Your task to perform on an android device: Open the stopwatch Image 0: 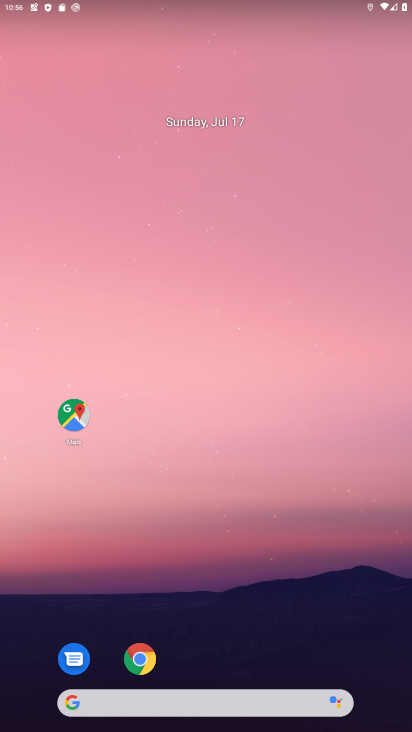
Step 0: drag from (289, 566) to (275, 45)
Your task to perform on an android device: Open the stopwatch Image 1: 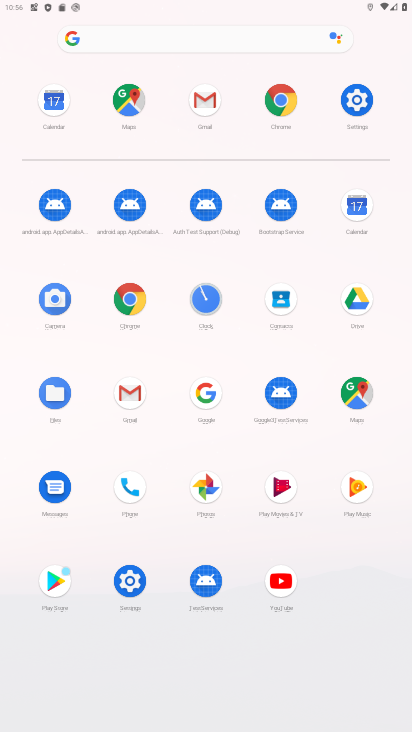
Step 1: click (207, 300)
Your task to perform on an android device: Open the stopwatch Image 2: 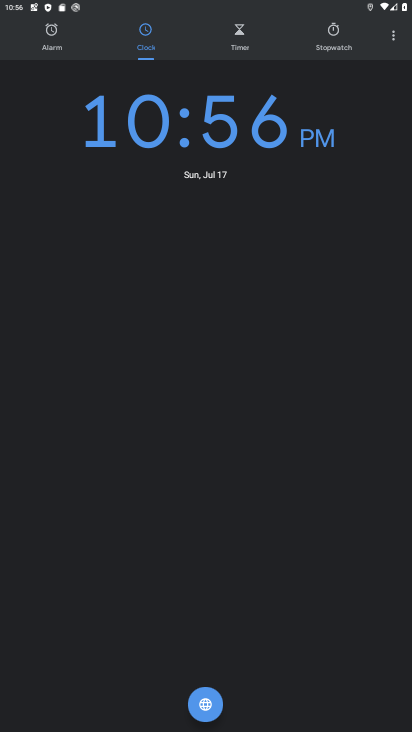
Step 2: click (347, 42)
Your task to perform on an android device: Open the stopwatch Image 3: 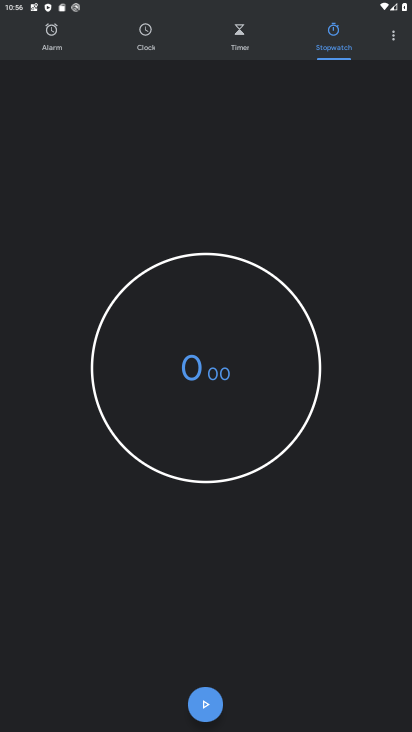
Step 3: task complete